Your task to perform on an android device: turn pop-ups on in chrome Image 0: 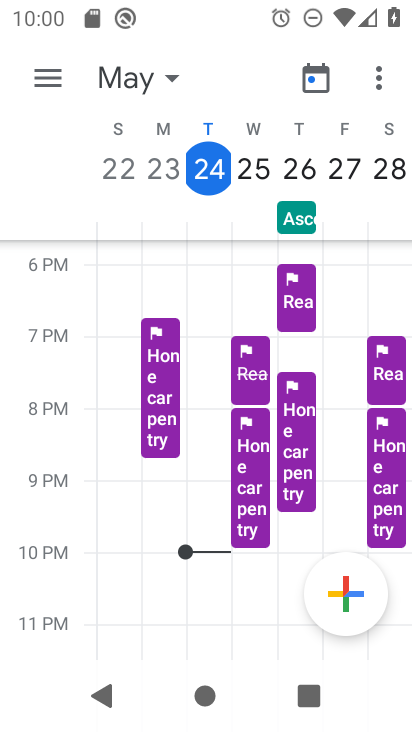
Step 0: press home button
Your task to perform on an android device: turn pop-ups on in chrome Image 1: 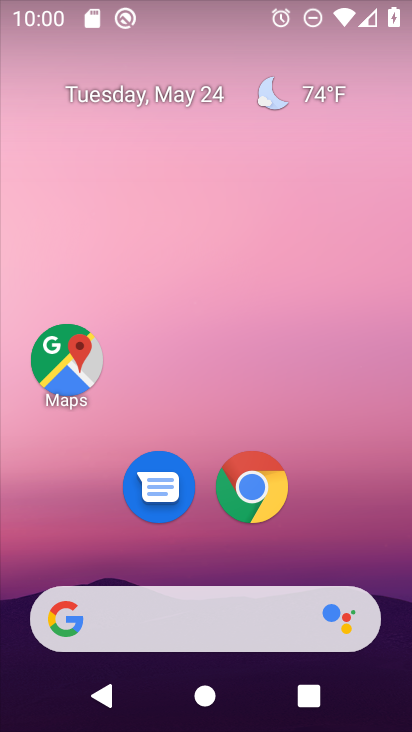
Step 1: click (260, 486)
Your task to perform on an android device: turn pop-ups on in chrome Image 2: 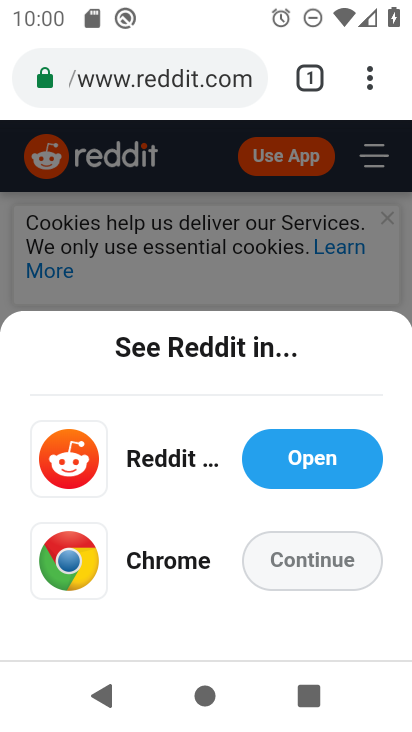
Step 2: click (373, 86)
Your task to perform on an android device: turn pop-ups on in chrome Image 3: 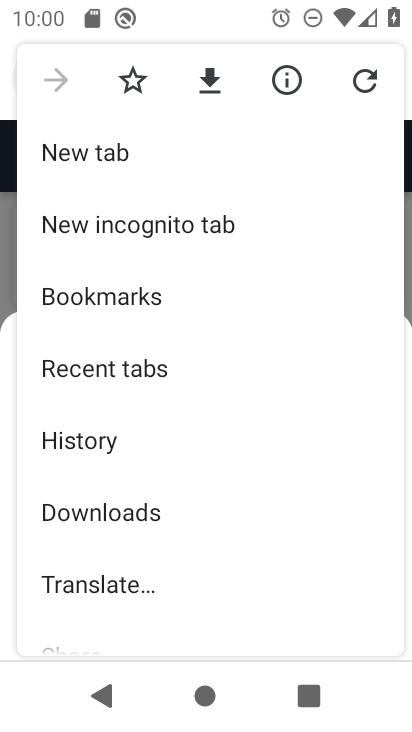
Step 3: drag from (209, 541) to (190, 161)
Your task to perform on an android device: turn pop-ups on in chrome Image 4: 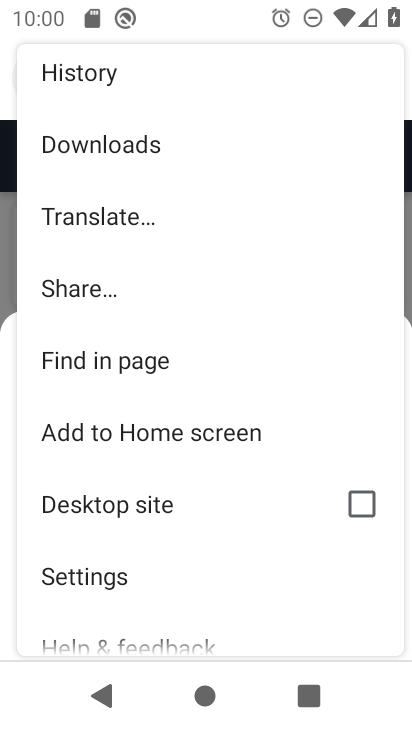
Step 4: click (102, 583)
Your task to perform on an android device: turn pop-ups on in chrome Image 5: 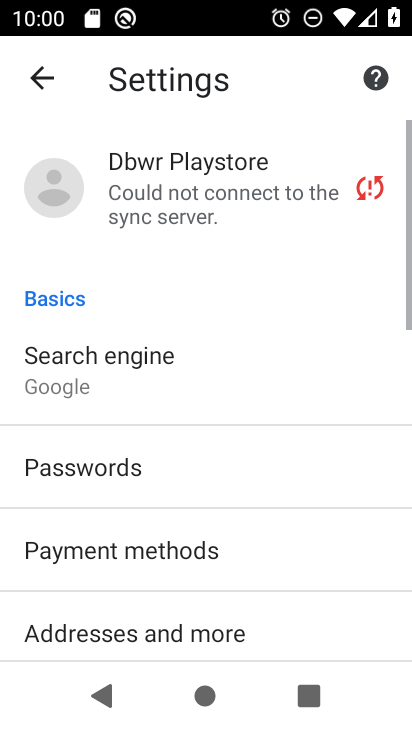
Step 5: drag from (190, 581) to (199, 254)
Your task to perform on an android device: turn pop-ups on in chrome Image 6: 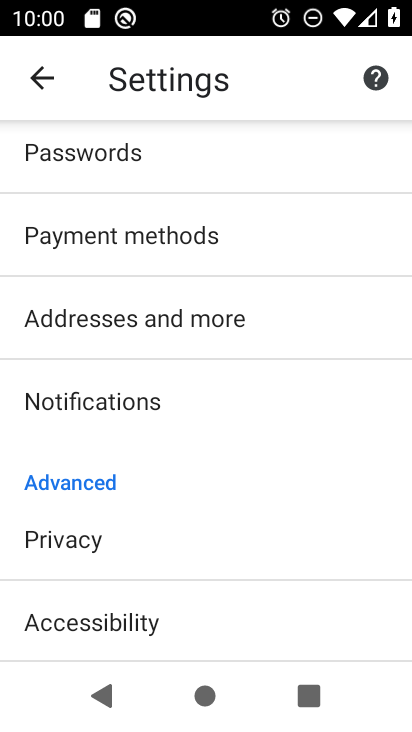
Step 6: drag from (210, 533) to (226, 239)
Your task to perform on an android device: turn pop-ups on in chrome Image 7: 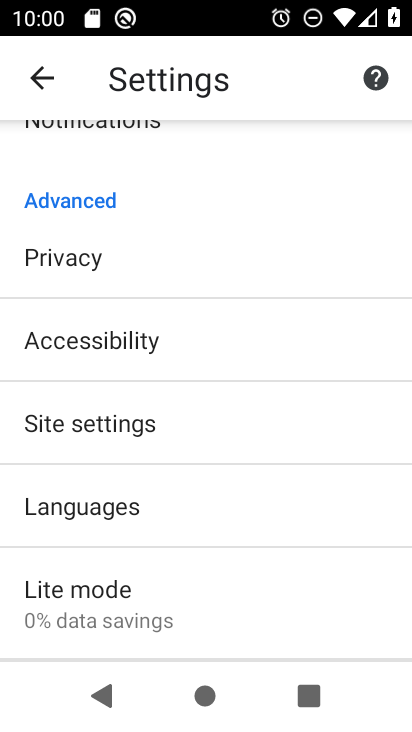
Step 7: click (120, 430)
Your task to perform on an android device: turn pop-ups on in chrome Image 8: 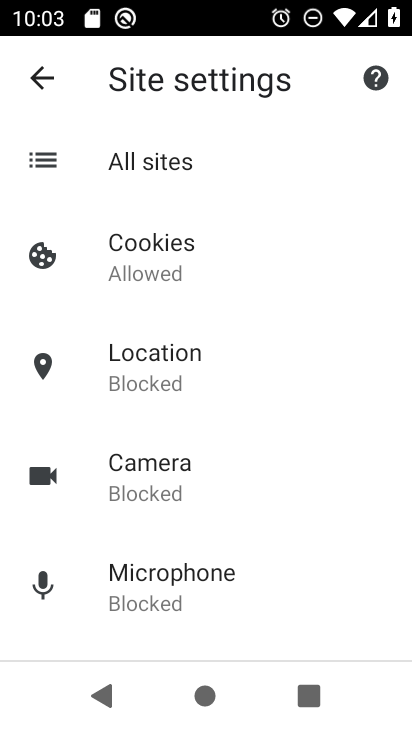
Step 8: drag from (228, 595) to (183, 223)
Your task to perform on an android device: turn pop-ups on in chrome Image 9: 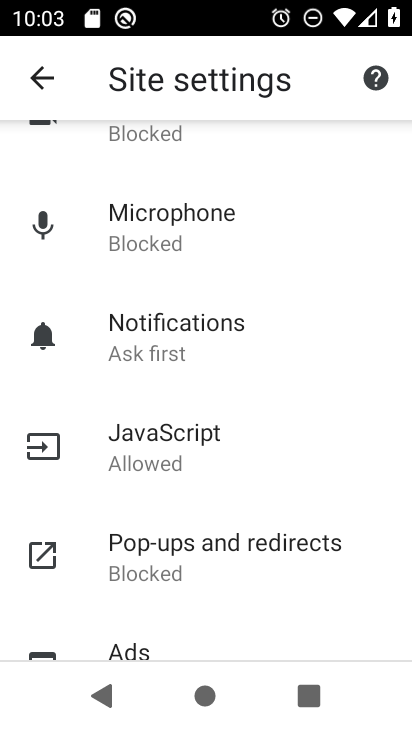
Step 9: click (156, 546)
Your task to perform on an android device: turn pop-ups on in chrome Image 10: 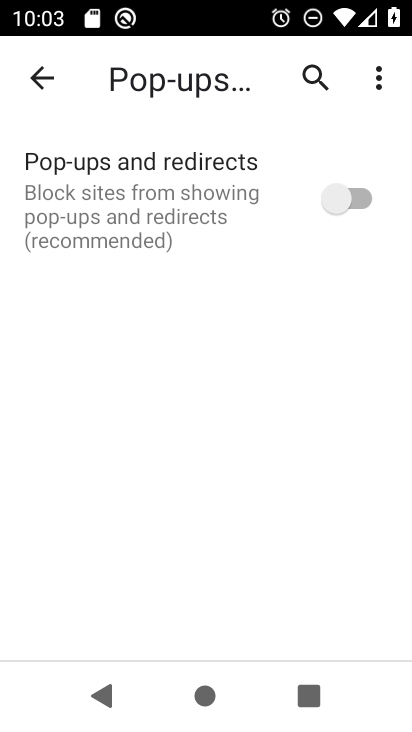
Step 10: click (337, 188)
Your task to perform on an android device: turn pop-ups on in chrome Image 11: 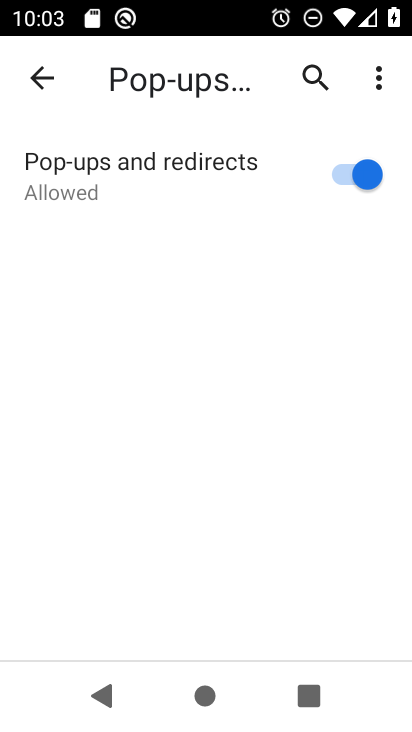
Step 11: task complete